Your task to perform on an android device: Open calendar and show me the second week of next month Image 0: 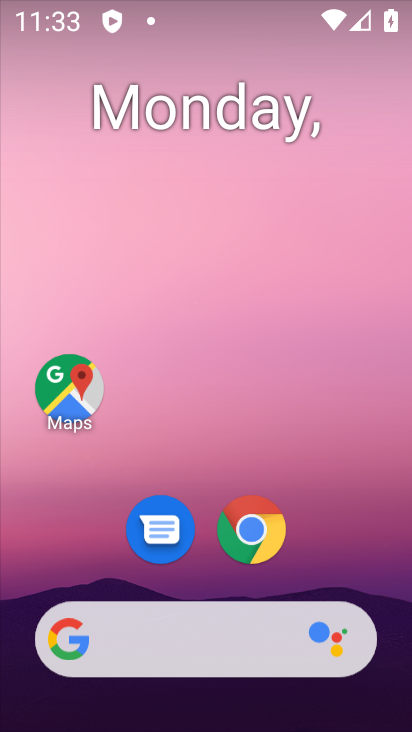
Step 0: drag from (333, 555) to (321, 158)
Your task to perform on an android device: Open calendar and show me the second week of next month Image 1: 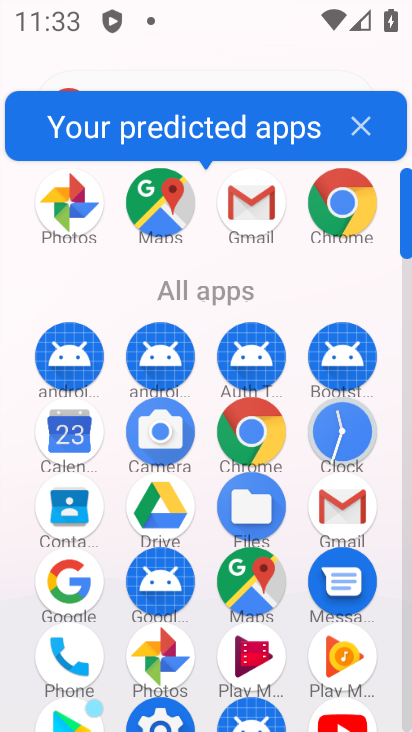
Step 1: click (74, 421)
Your task to perform on an android device: Open calendar and show me the second week of next month Image 2: 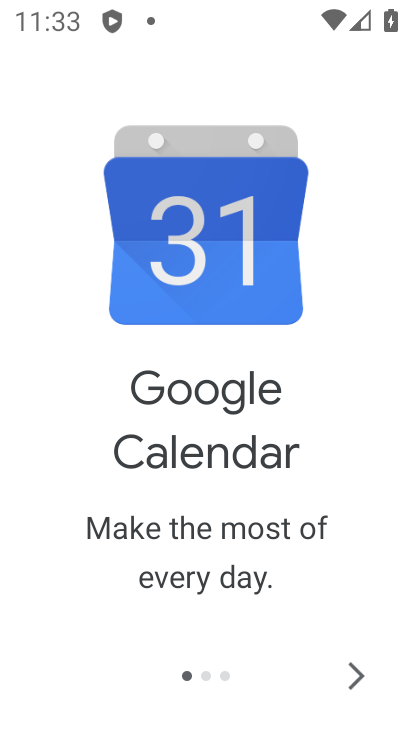
Step 2: click (359, 682)
Your task to perform on an android device: Open calendar and show me the second week of next month Image 3: 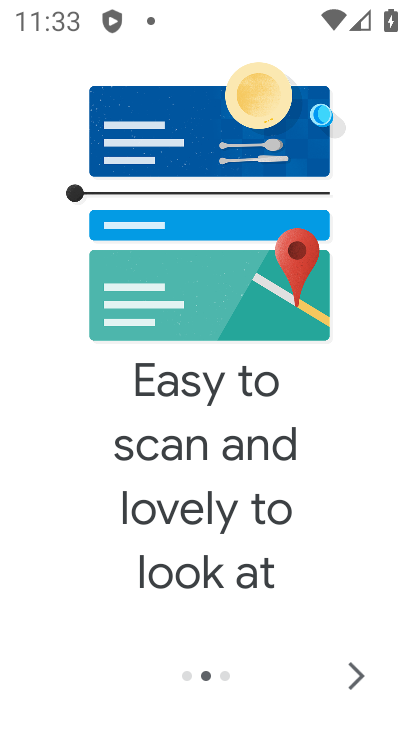
Step 3: click (357, 682)
Your task to perform on an android device: Open calendar and show me the second week of next month Image 4: 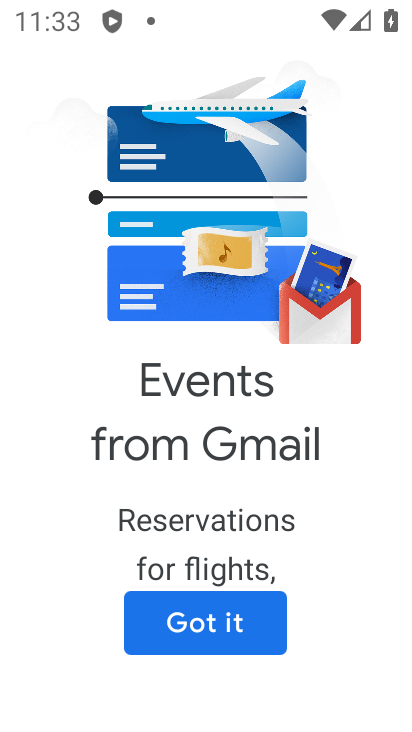
Step 4: click (238, 625)
Your task to perform on an android device: Open calendar and show me the second week of next month Image 5: 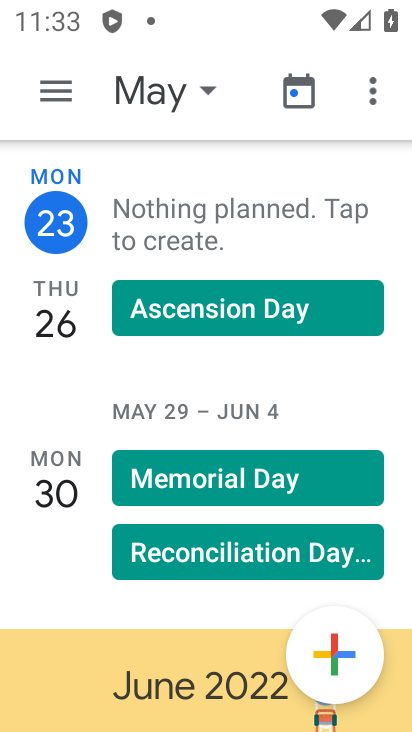
Step 5: click (154, 84)
Your task to perform on an android device: Open calendar and show me the second week of next month Image 6: 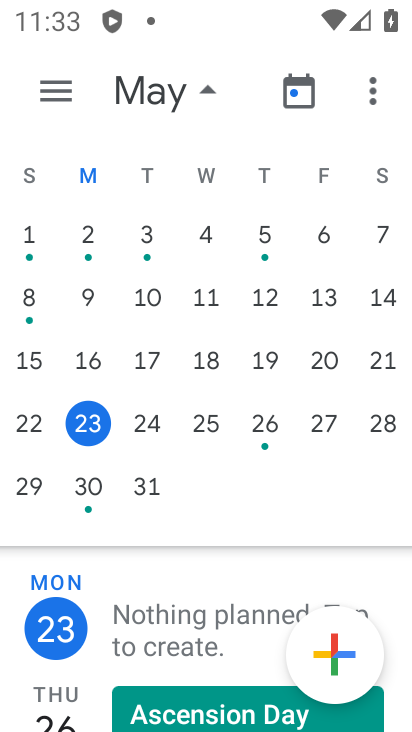
Step 6: drag from (321, 347) to (0, 276)
Your task to perform on an android device: Open calendar and show me the second week of next month Image 7: 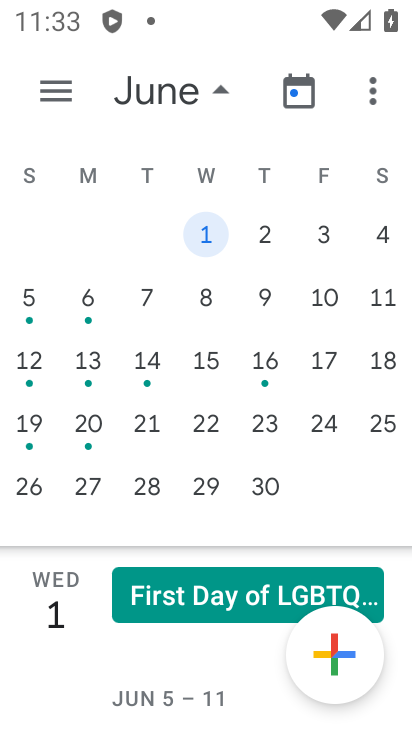
Step 7: click (25, 297)
Your task to perform on an android device: Open calendar and show me the second week of next month Image 8: 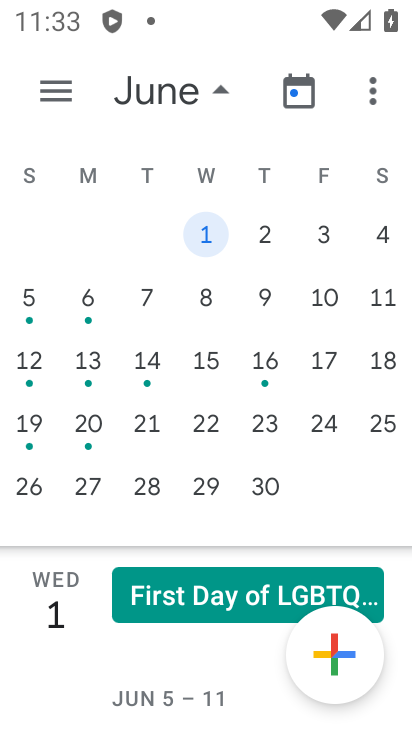
Step 8: click (30, 303)
Your task to perform on an android device: Open calendar and show me the second week of next month Image 9: 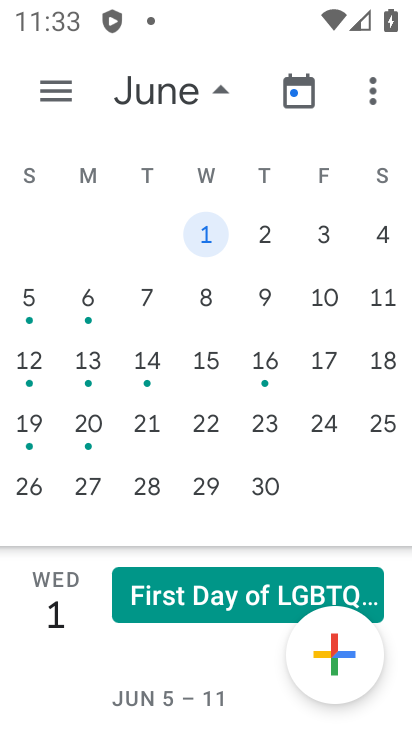
Step 9: click (34, 308)
Your task to perform on an android device: Open calendar and show me the second week of next month Image 10: 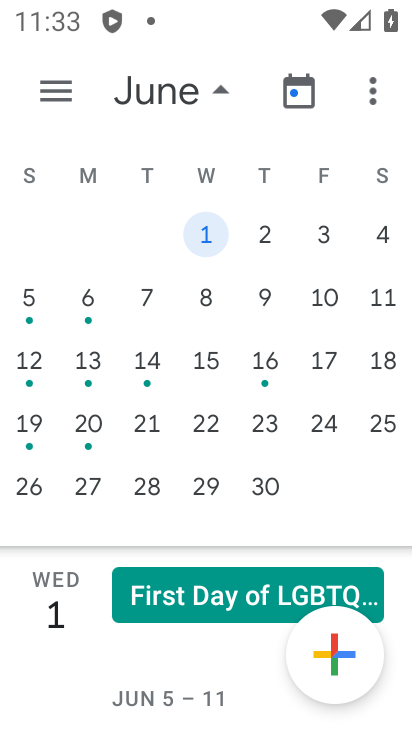
Step 10: click (36, 302)
Your task to perform on an android device: Open calendar and show me the second week of next month Image 11: 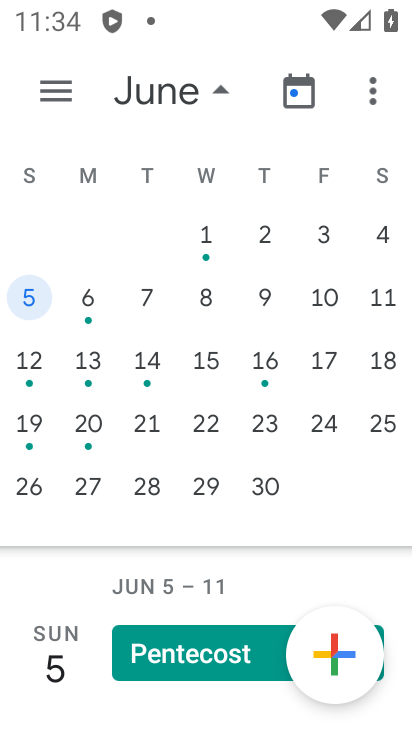
Step 11: task complete